Your task to perform on an android device: move a message to another label in the gmail app Image 0: 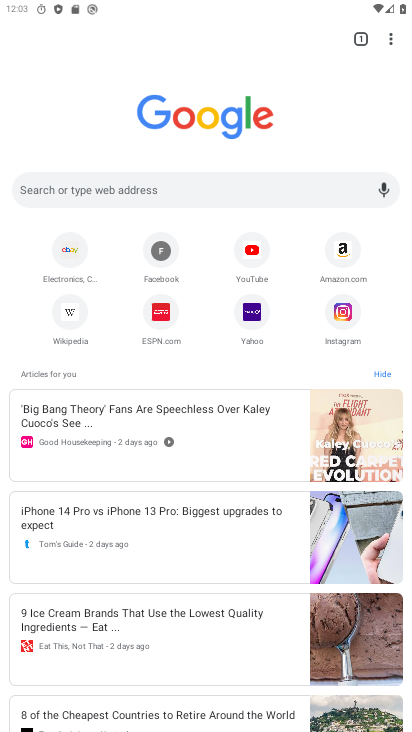
Step 0: press home button
Your task to perform on an android device: move a message to another label in the gmail app Image 1: 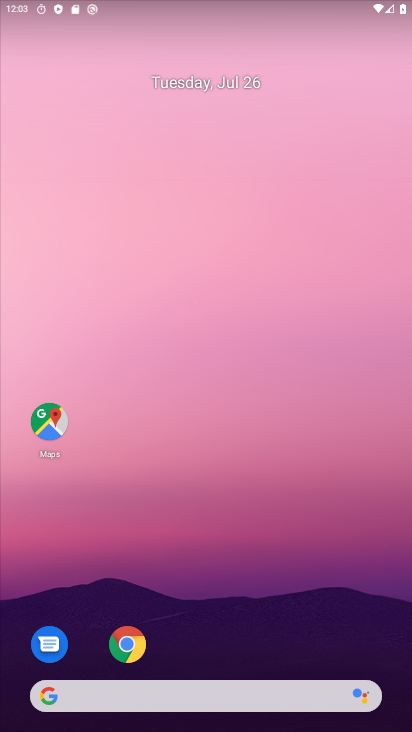
Step 1: drag from (194, 634) to (195, 11)
Your task to perform on an android device: move a message to another label in the gmail app Image 2: 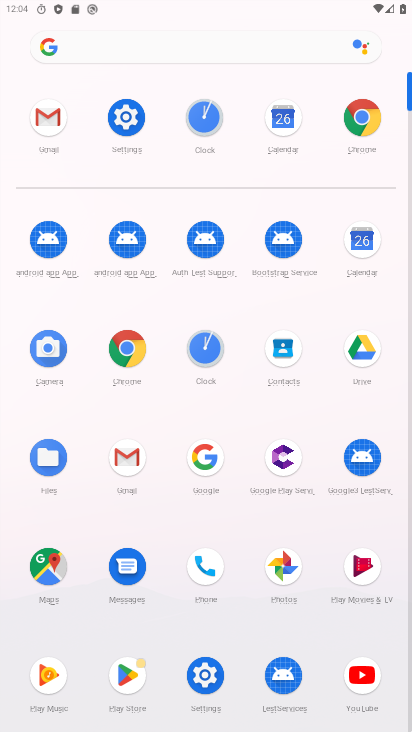
Step 2: click (124, 458)
Your task to perform on an android device: move a message to another label in the gmail app Image 3: 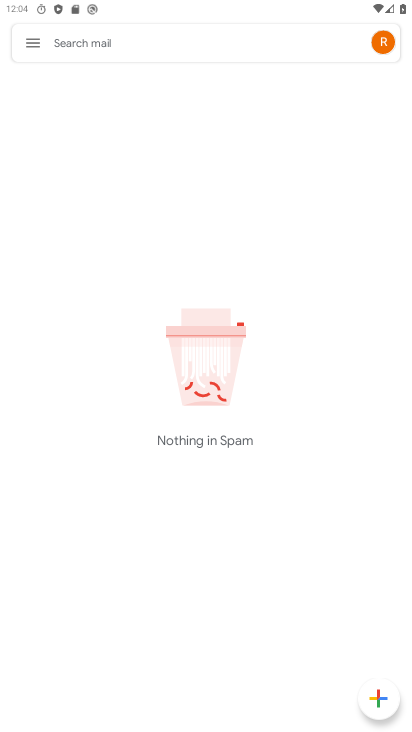
Step 3: click (32, 49)
Your task to perform on an android device: move a message to another label in the gmail app Image 4: 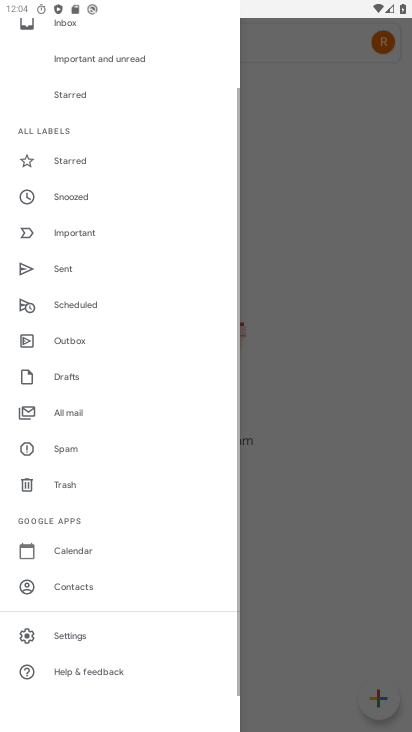
Step 4: drag from (111, 137) to (117, 659)
Your task to perform on an android device: move a message to another label in the gmail app Image 5: 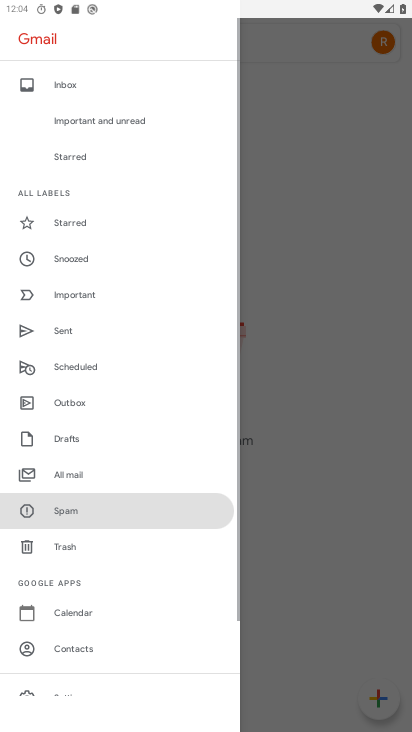
Step 5: click (43, 85)
Your task to perform on an android device: move a message to another label in the gmail app Image 6: 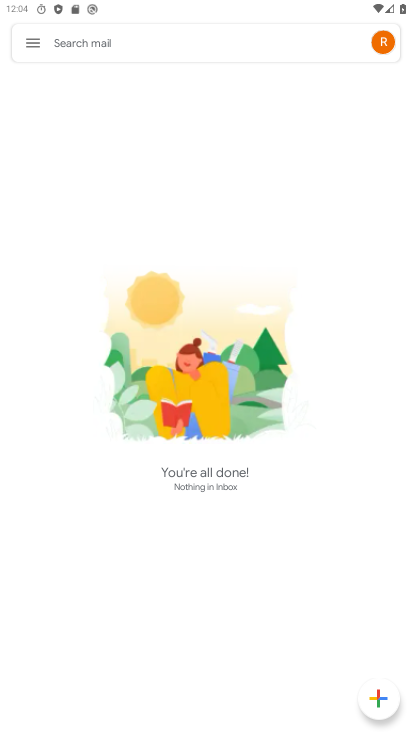
Step 6: task complete